Your task to perform on an android device: Toggle the flashlight Image 0: 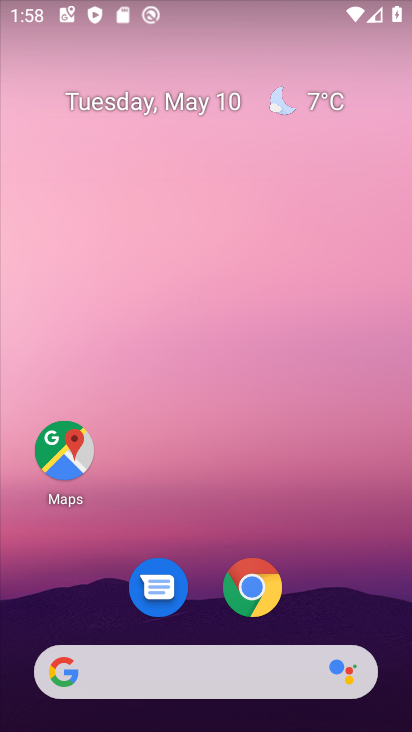
Step 0: drag from (343, 8) to (310, 521)
Your task to perform on an android device: Toggle the flashlight Image 1: 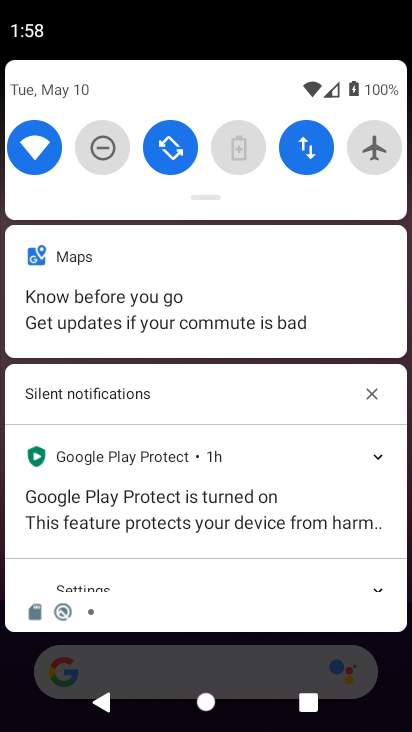
Step 1: drag from (267, 185) to (262, 475)
Your task to perform on an android device: Toggle the flashlight Image 2: 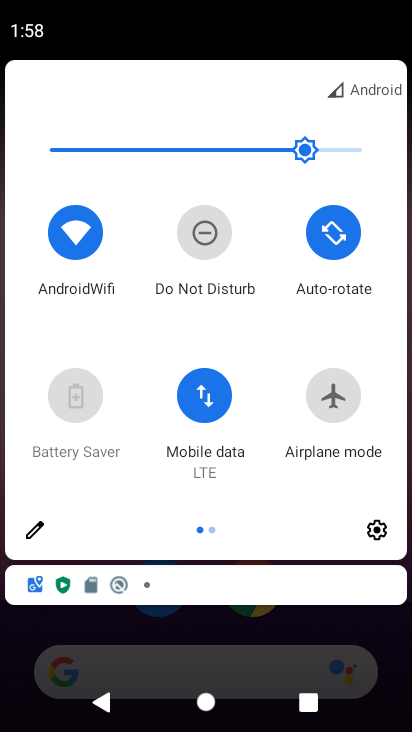
Step 2: click (33, 524)
Your task to perform on an android device: Toggle the flashlight Image 3: 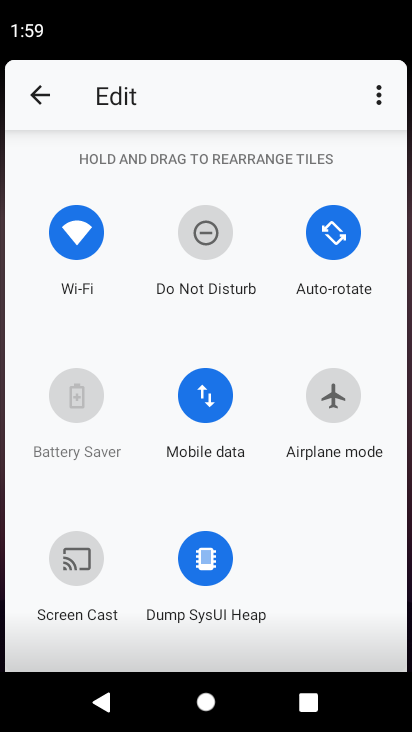
Step 3: task complete